Your task to perform on an android device: add a contact Image 0: 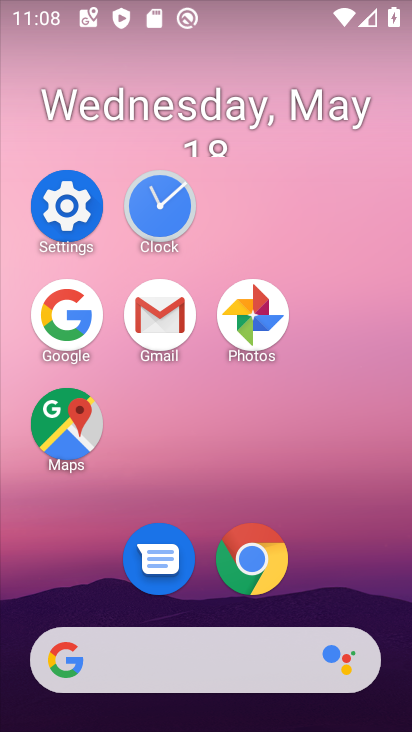
Step 0: drag from (354, 509) to (347, 116)
Your task to perform on an android device: add a contact Image 1: 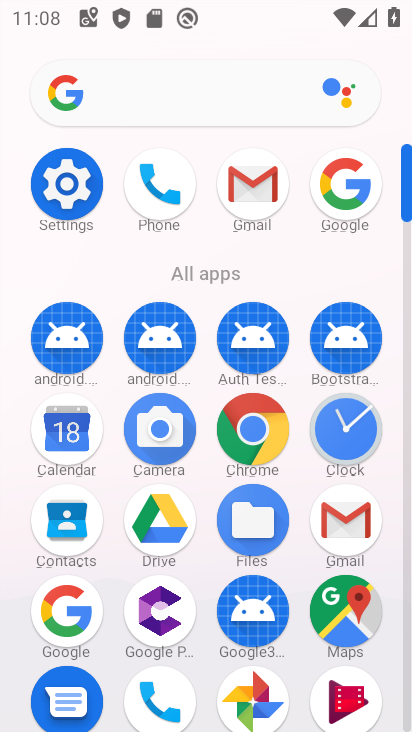
Step 1: drag from (65, 524) to (239, 231)
Your task to perform on an android device: add a contact Image 2: 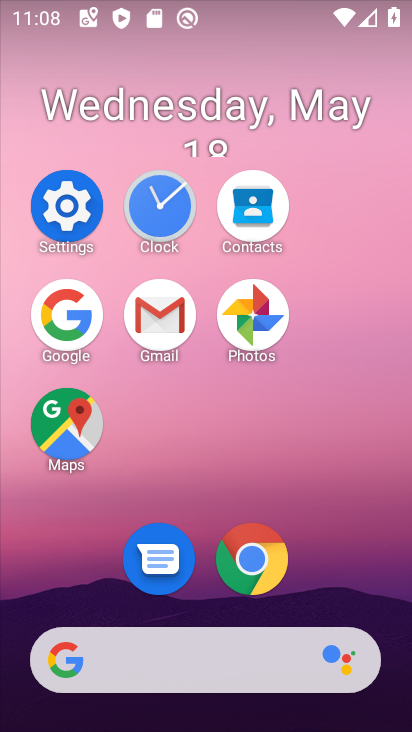
Step 2: click (247, 198)
Your task to perform on an android device: add a contact Image 3: 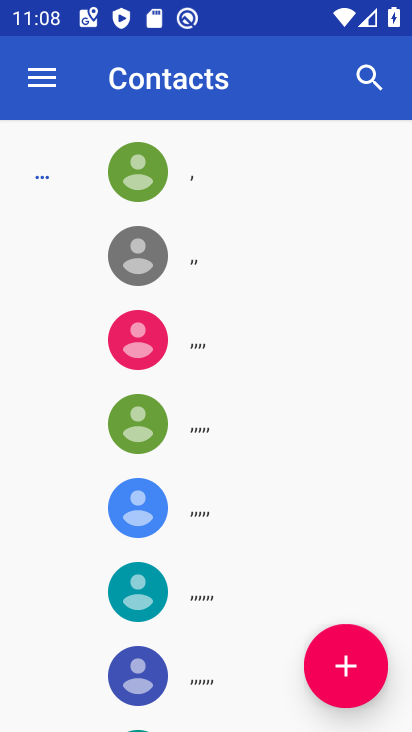
Step 3: click (356, 651)
Your task to perform on an android device: add a contact Image 4: 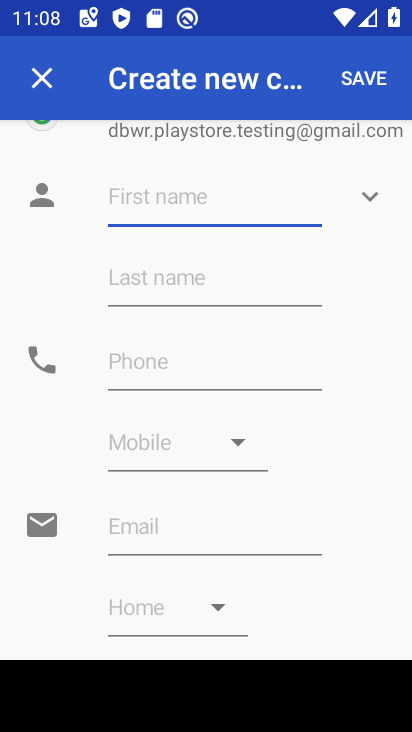
Step 4: type "aa"
Your task to perform on an android device: add a contact Image 5: 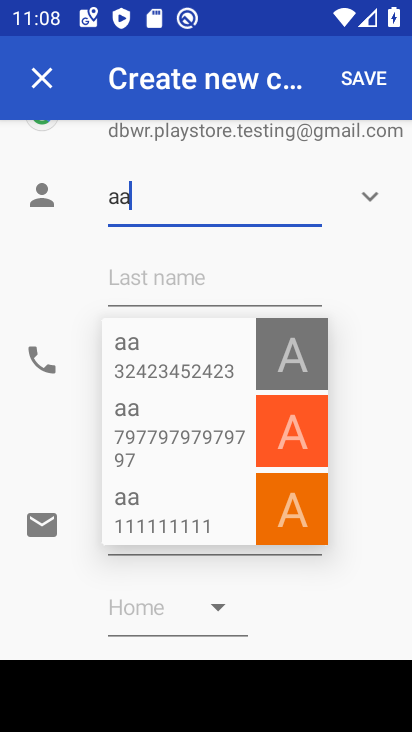
Step 5: click (164, 294)
Your task to perform on an android device: add a contact Image 6: 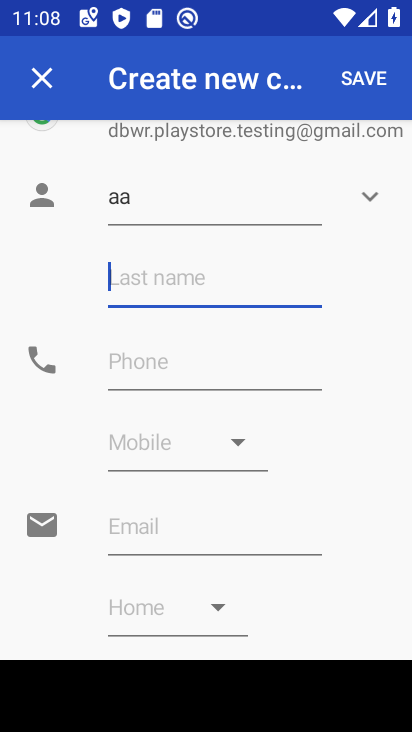
Step 6: type "cc"
Your task to perform on an android device: add a contact Image 7: 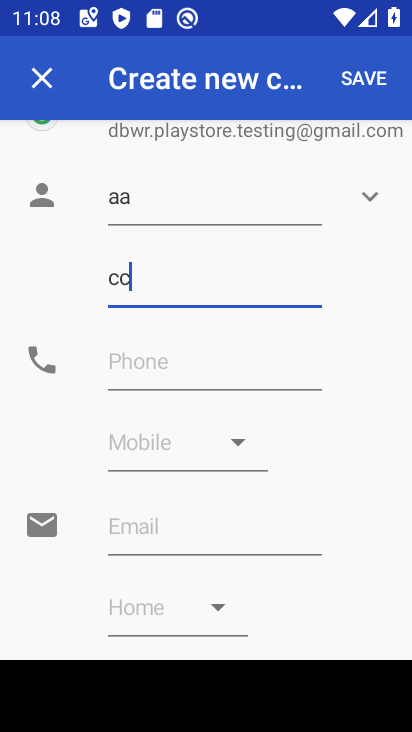
Step 7: click (236, 359)
Your task to perform on an android device: add a contact Image 8: 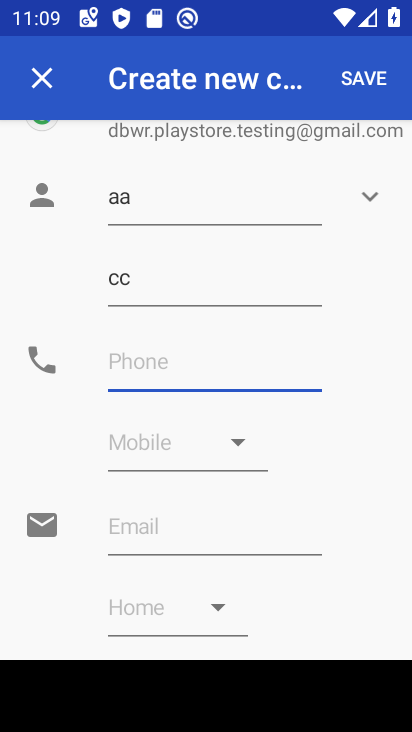
Step 8: type "3323445654"
Your task to perform on an android device: add a contact Image 9: 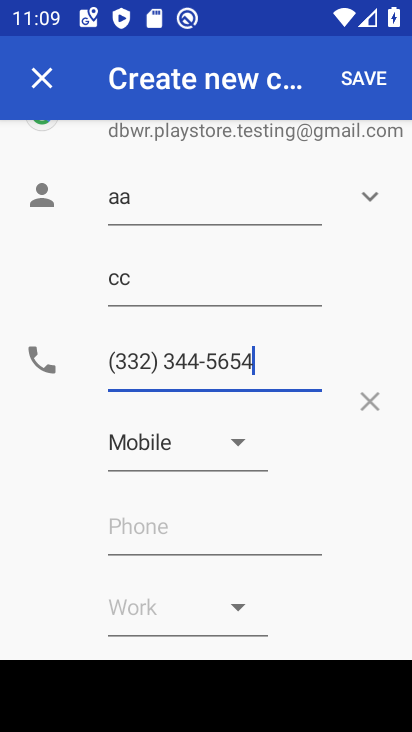
Step 9: click (378, 81)
Your task to perform on an android device: add a contact Image 10: 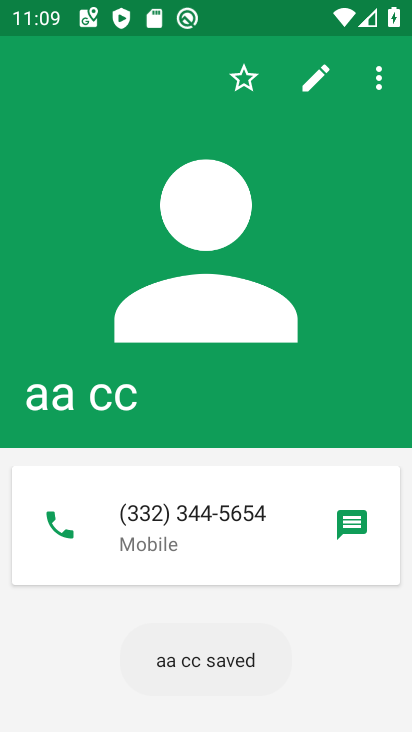
Step 10: task complete